Your task to perform on an android device: open chrome privacy settings Image 0: 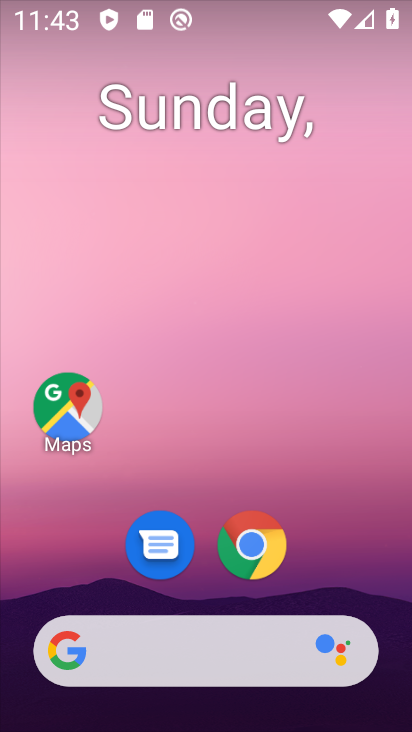
Step 0: drag from (383, 585) to (365, 216)
Your task to perform on an android device: open chrome privacy settings Image 1: 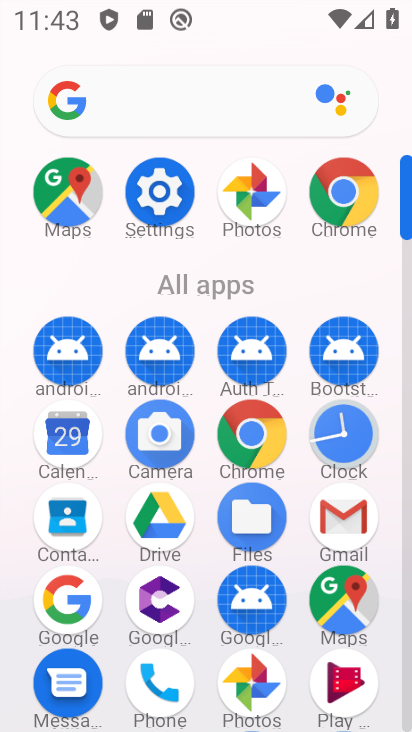
Step 1: click (251, 443)
Your task to perform on an android device: open chrome privacy settings Image 2: 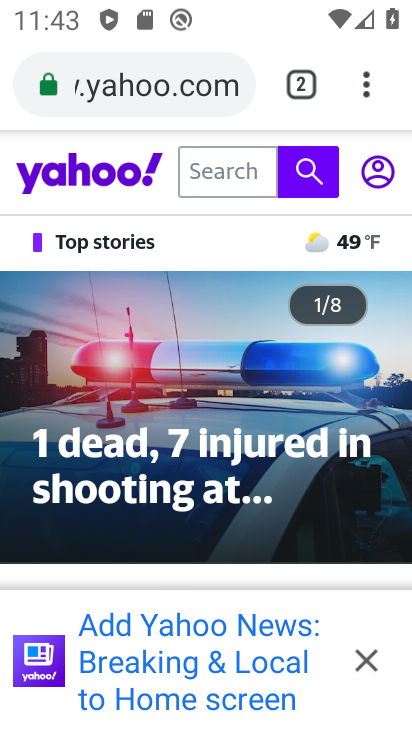
Step 2: click (369, 89)
Your task to perform on an android device: open chrome privacy settings Image 3: 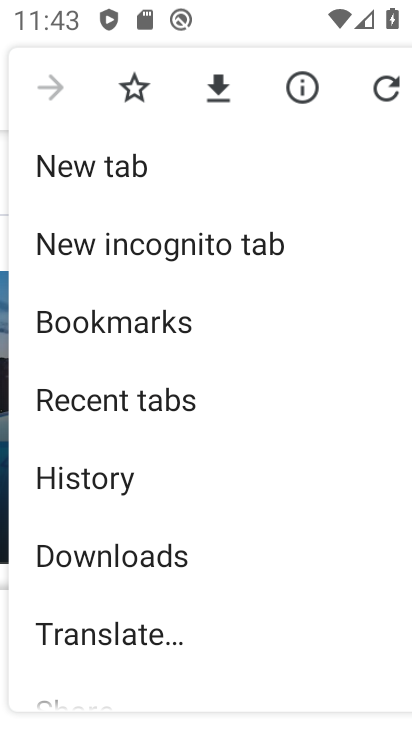
Step 3: drag from (305, 541) to (312, 314)
Your task to perform on an android device: open chrome privacy settings Image 4: 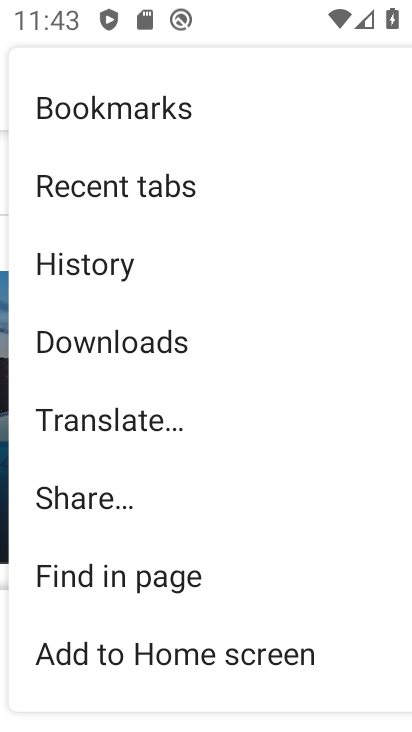
Step 4: drag from (312, 548) to (335, 325)
Your task to perform on an android device: open chrome privacy settings Image 5: 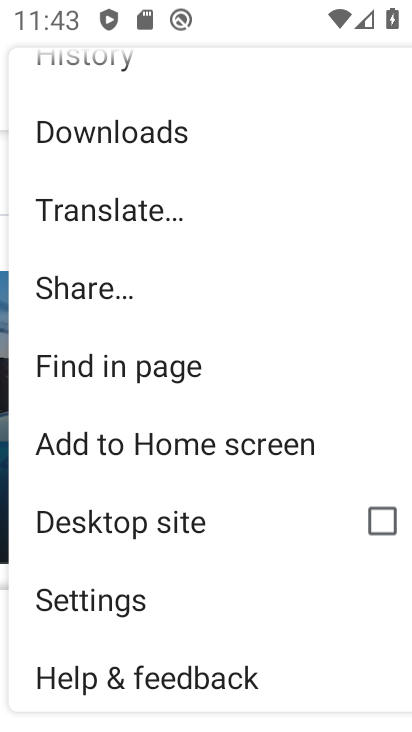
Step 5: drag from (287, 544) to (303, 366)
Your task to perform on an android device: open chrome privacy settings Image 6: 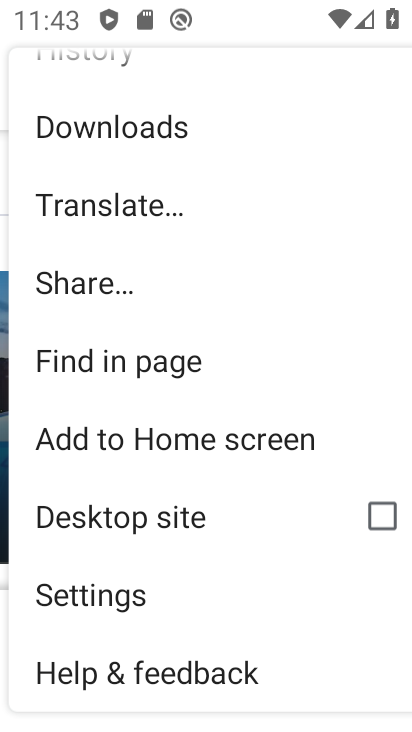
Step 6: click (152, 594)
Your task to perform on an android device: open chrome privacy settings Image 7: 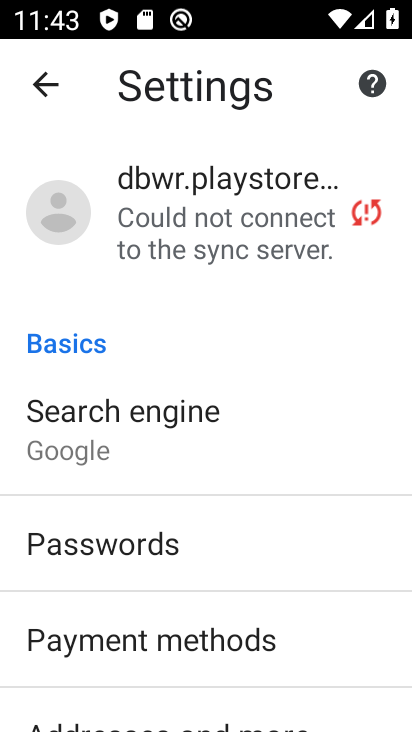
Step 7: drag from (275, 579) to (298, 439)
Your task to perform on an android device: open chrome privacy settings Image 8: 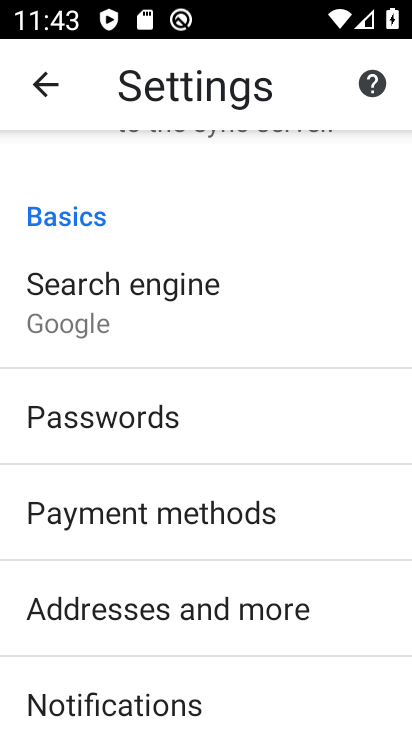
Step 8: drag from (356, 608) to (358, 404)
Your task to perform on an android device: open chrome privacy settings Image 9: 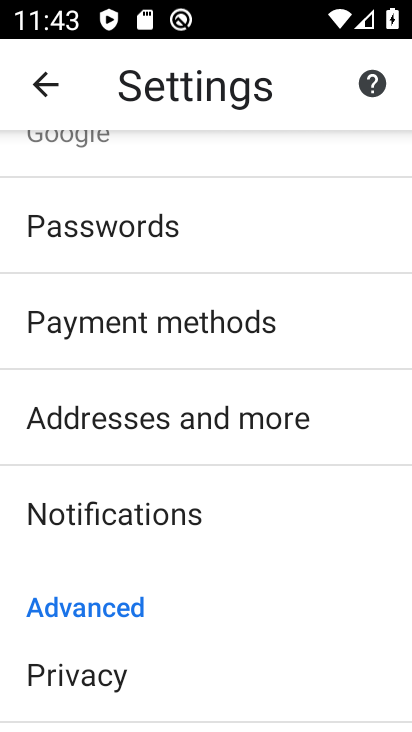
Step 9: drag from (352, 620) to (350, 448)
Your task to perform on an android device: open chrome privacy settings Image 10: 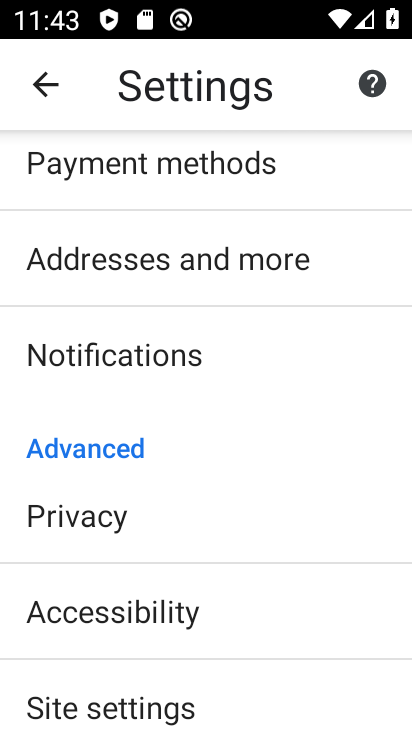
Step 10: drag from (338, 611) to (332, 314)
Your task to perform on an android device: open chrome privacy settings Image 11: 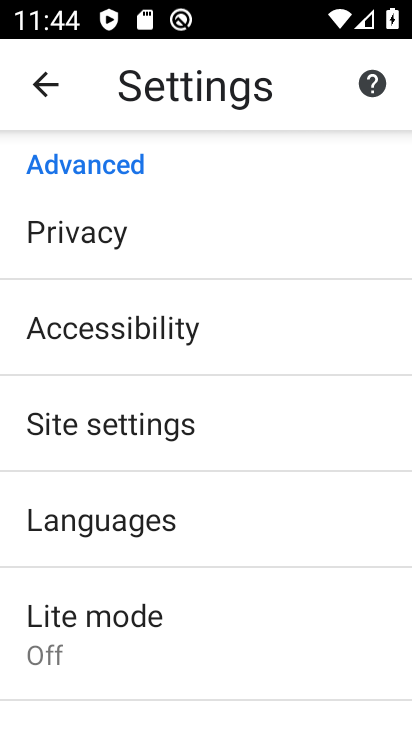
Step 11: click (125, 260)
Your task to perform on an android device: open chrome privacy settings Image 12: 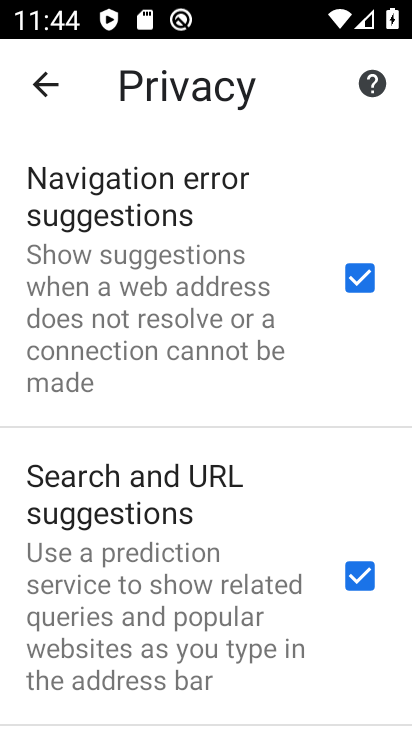
Step 12: task complete